Your task to perform on an android device: turn on bluetooth scan Image 0: 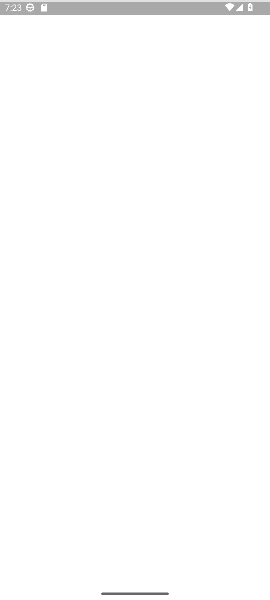
Step 0: click (169, 524)
Your task to perform on an android device: turn on bluetooth scan Image 1: 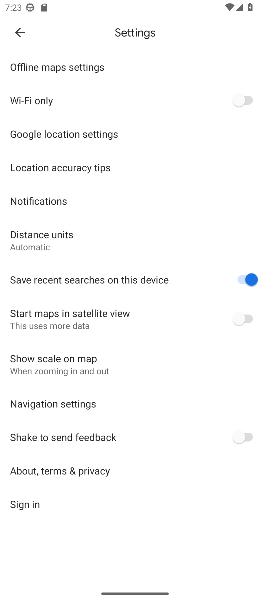
Step 1: press home button
Your task to perform on an android device: turn on bluetooth scan Image 2: 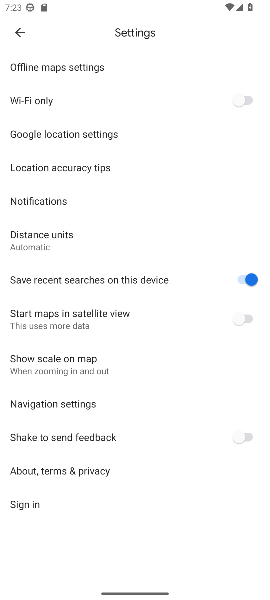
Step 2: press home button
Your task to perform on an android device: turn on bluetooth scan Image 3: 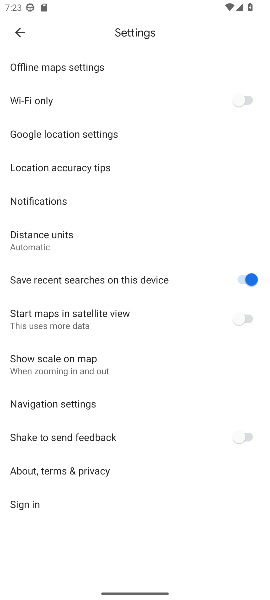
Step 3: press home button
Your task to perform on an android device: turn on bluetooth scan Image 4: 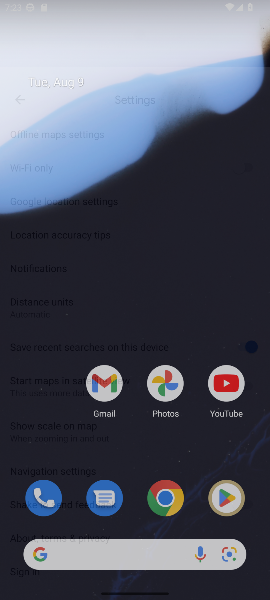
Step 4: press home button
Your task to perform on an android device: turn on bluetooth scan Image 5: 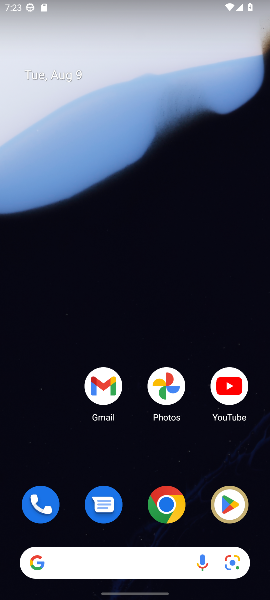
Step 5: press home button
Your task to perform on an android device: turn on bluetooth scan Image 6: 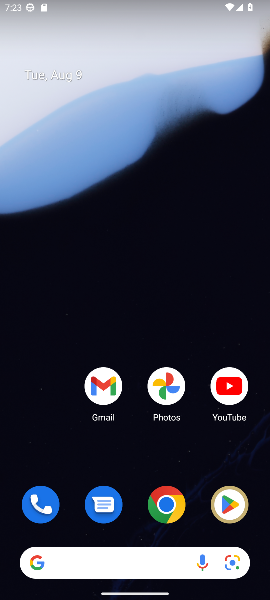
Step 6: drag from (197, 452) to (172, 17)
Your task to perform on an android device: turn on bluetooth scan Image 7: 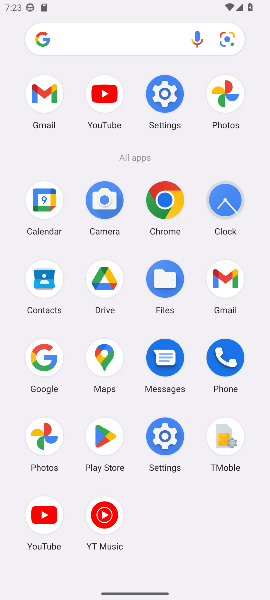
Step 7: click (168, 97)
Your task to perform on an android device: turn on bluetooth scan Image 8: 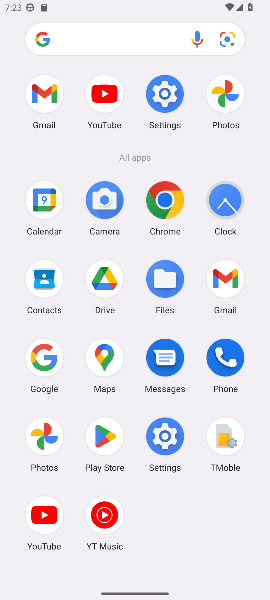
Step 8: click (168, 97)
Your task to perform on an android device: turn on bluetooth scan Image 9: 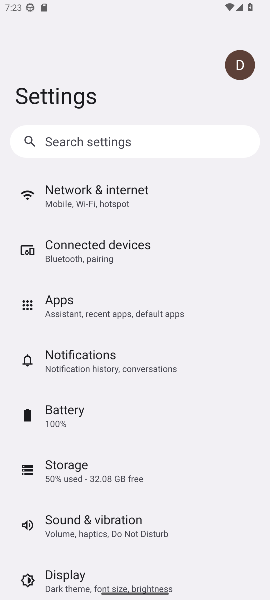
Step 9: drag from (157, 438) to (188, 263)
Your task to perform on an android device: turn on bluetooth scan Image 10: 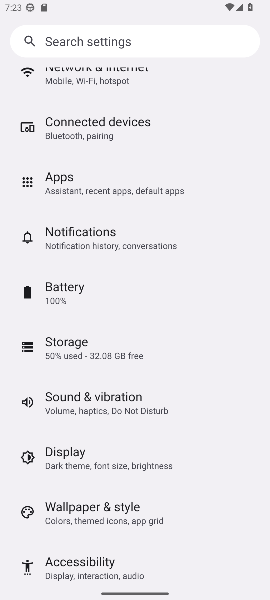
Step 10: drag from (77, 519) to (155, 161)
Your task to perform on an android device: turn on bluetooth scan Image 11: 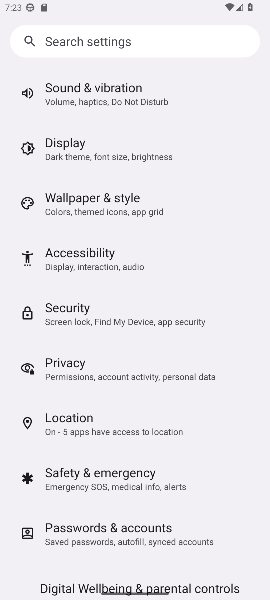
Step 11: drag from (83, 397) to (173, 32)
Your task to perform on an android device: turn on bluetooth scan Image 12: 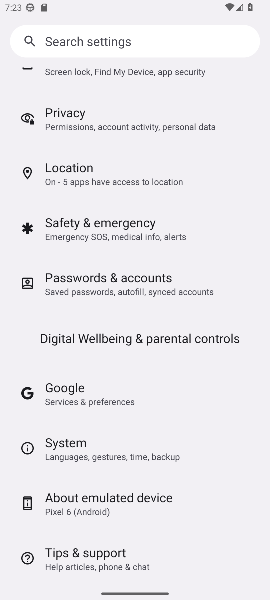
Step 12: click (90, 166)
Your task to perform on an android device: turn on bluetooth scan Image 13: 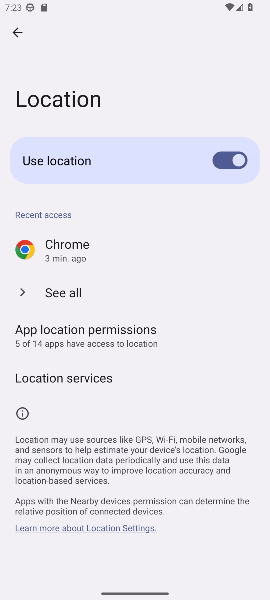
Step 13: task complete